Your task to perform on an android device: Do I have any events this weekend? Image 0: 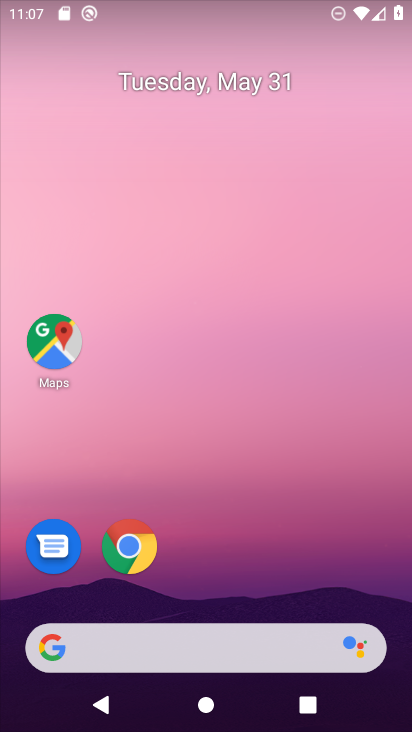
Step 0: drag from (279, 646) to (249, 109)
Your task to perform on an android device: Do I have any events this weekend? Image 1: 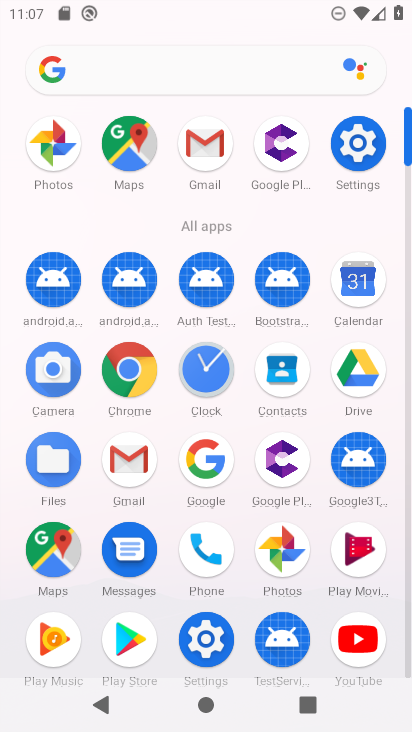
Step 1: click (352, 301)
Your task to perform on an android device: Do I have any events this weekend? Image 2: 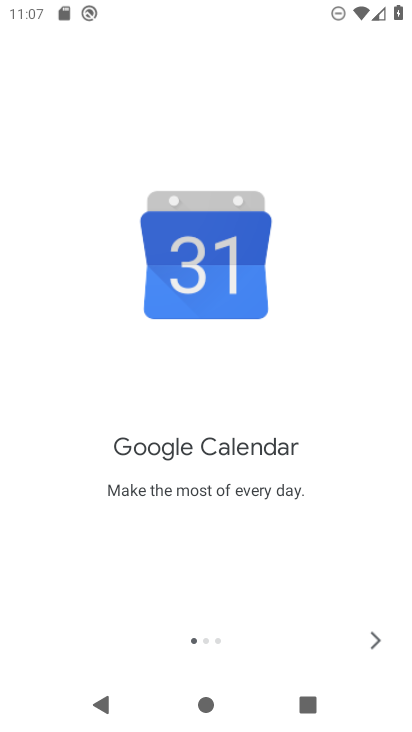
Step 2: click (383, 636)
Your task to perform on an android device: Do I have any events this weekend? Image 3: 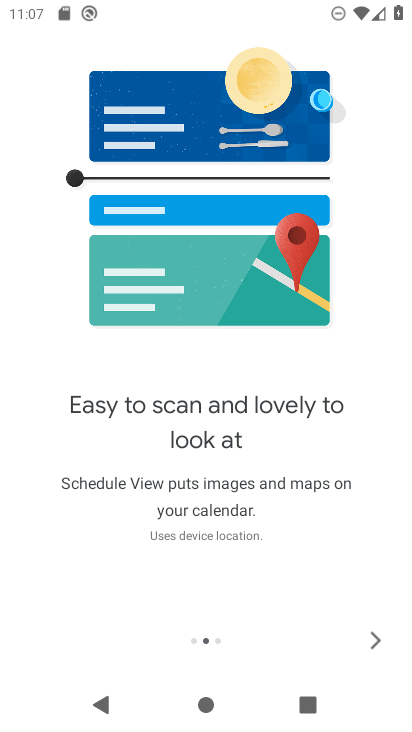
Step 3: click (383, 636)
Your task to perform on an android device: Do I have any events this weekend? Image 4: 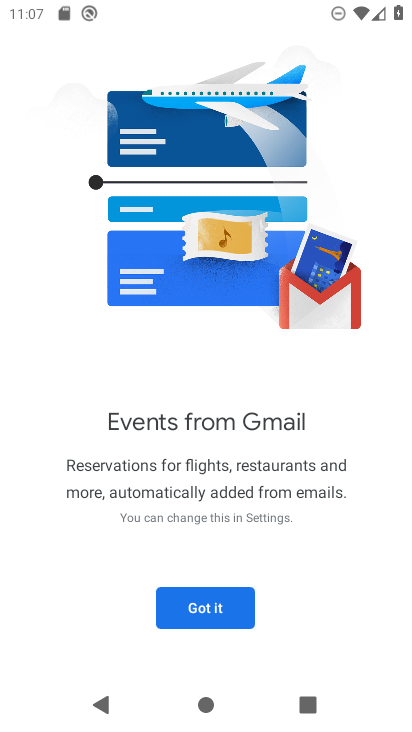
Step 4: click (223, 612)
Your task to perform on an android device: Do I have any events this weekend? Image 5: 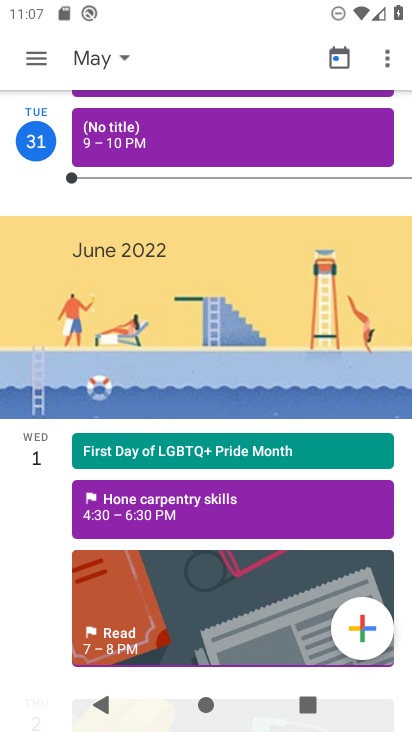
Step 5: click (115, 63)
Your task to perform on an android device: Do I have any events this weekend? Image 6: 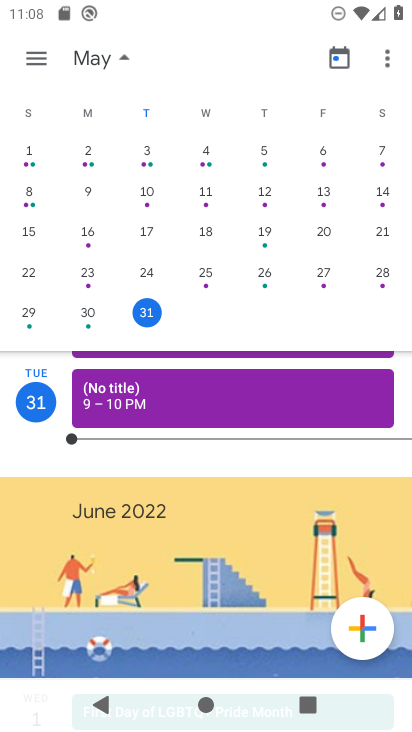
Step 6: drag from (380, 260) to (22, 263)
Your task to perform on an android device: Do I have any events this weekend? Image 7: 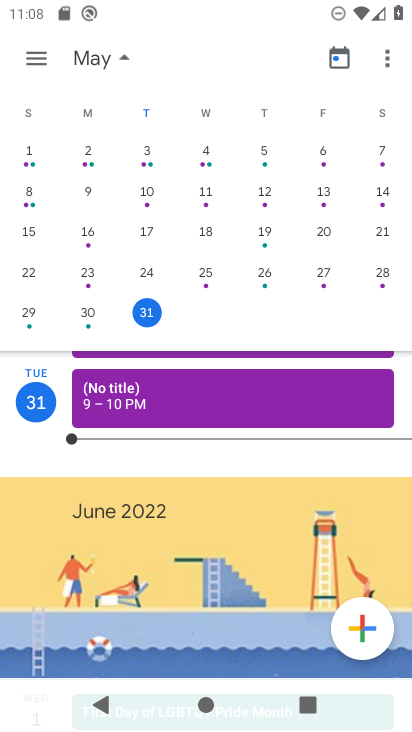
Step 7: drag from (358, 200) to (24, 289)
Your task to perform on an android device: Do I have any events this weekend? Image 8: 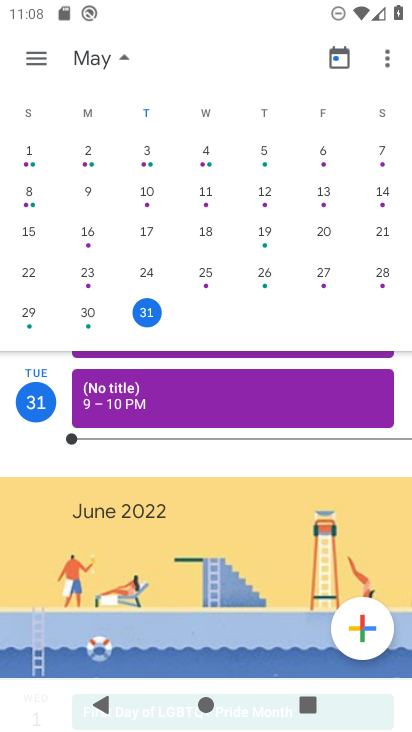
Step 8: drag from (392, 186) to (3, 226)
Your task to perform on an android device: Do I have any events this weekend? Image 9: 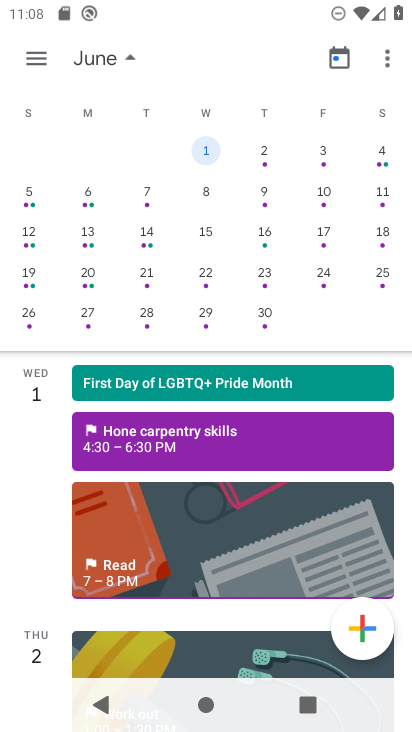
Step 9: click (378, 154)
Your task to perform on an android device: Do I have any events this weekend? Image 10: 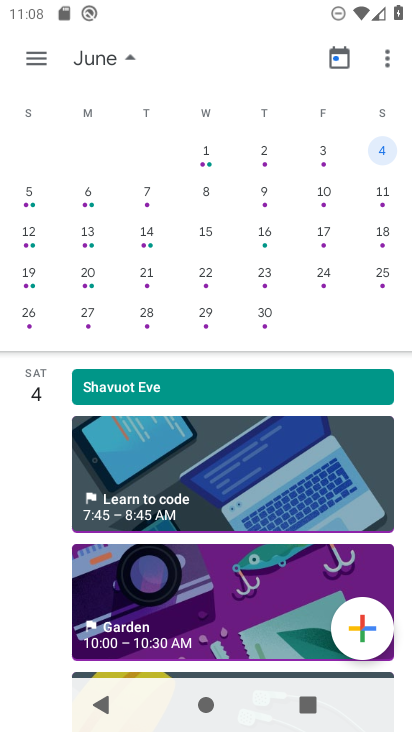
Step 10: task complete